Your task to perform on an android device: Open Yahoo.com Image 0: 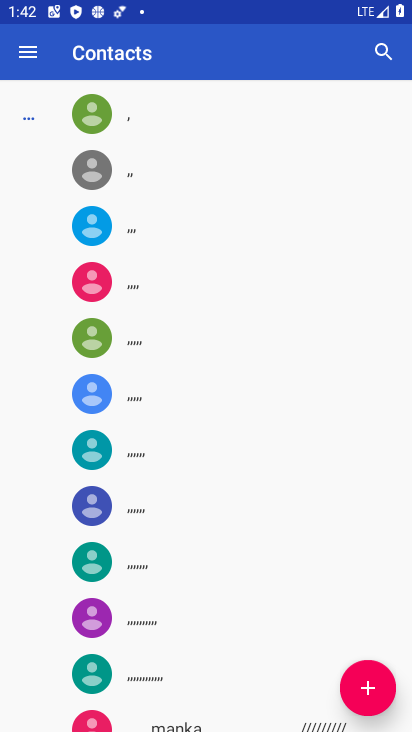
Step 0: press home button
Your task to perform on an android device: Open Yahoo.com Image 1: 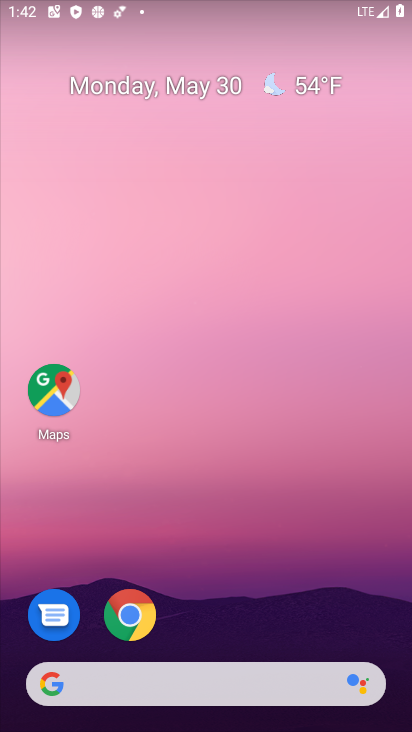
Step 1: click (134, 606)
Your task to perform on an android device: Open Yahoo.com Image 2: 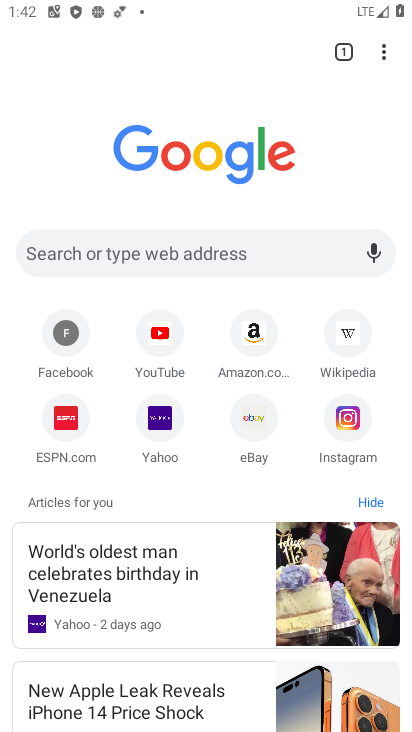
Step 2: click (159, 419)
Your task to perform on an android device: Open Yahoo.com Image 3: 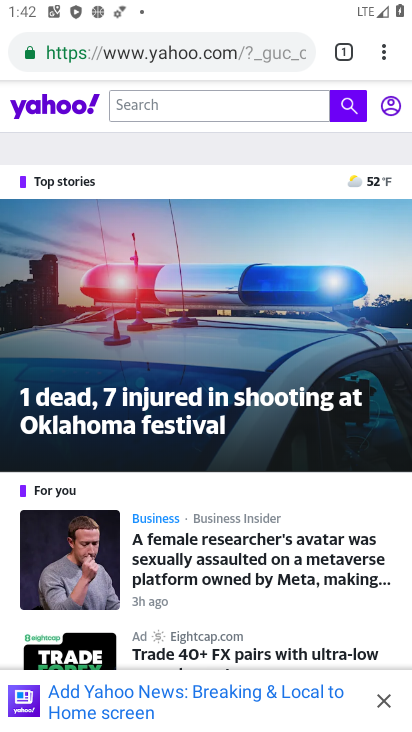
Step 3: task complete